Your task to perform on an android device: change keyboard looks Image 0: 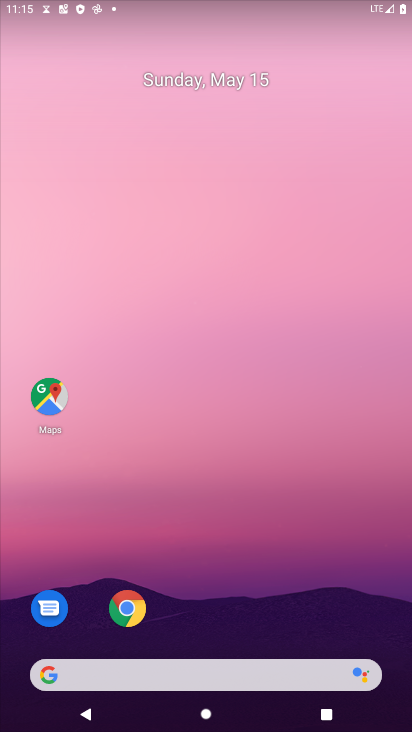
Step 0: drag from (324, 569) to (314, 175)
Your task to perform on an android device: change keyboard looks Image 1: 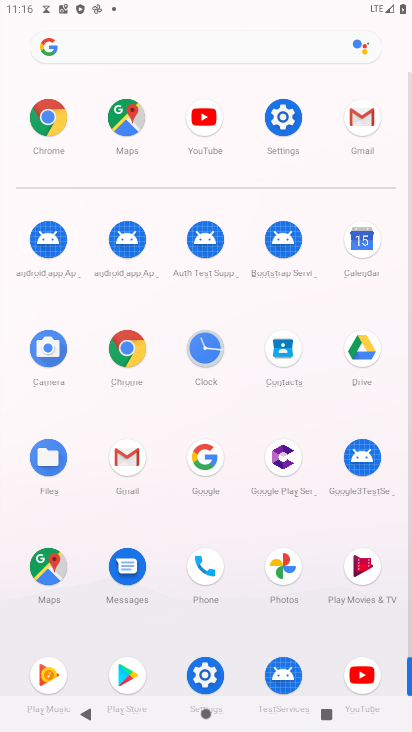
Step 1: click (297, 126)
Your task to perform on an android device: change keyboard looks Image 2: 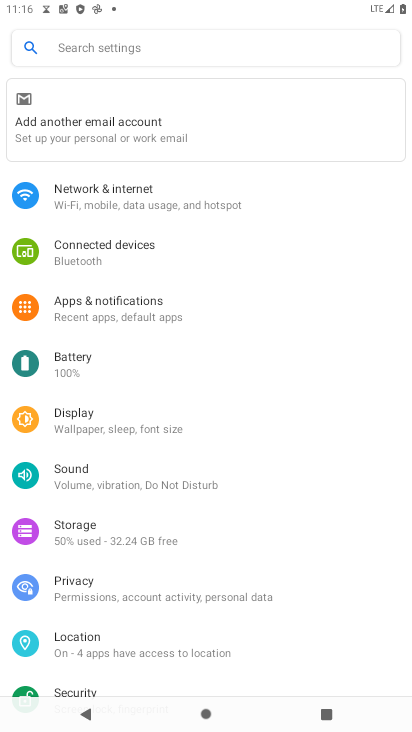
Step 2: drag from (214, 644) to (160, 213)
Your task to perform on an android device: change keyboard looks Image 3: 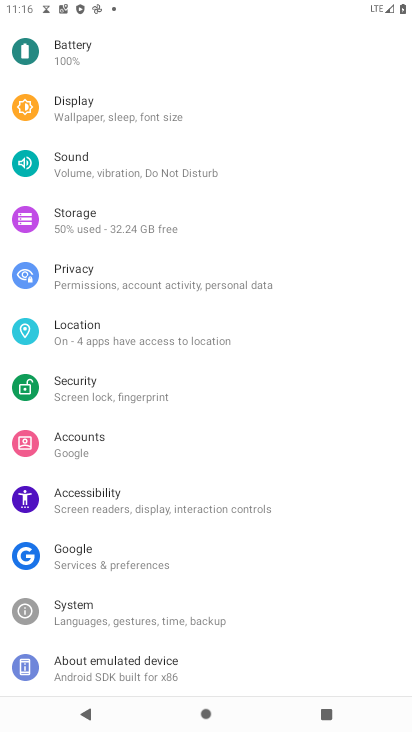
Step 3: drag from (152, 543) to (214, 238)
Your task to perform on an android device: change keyboard looks Image 4: 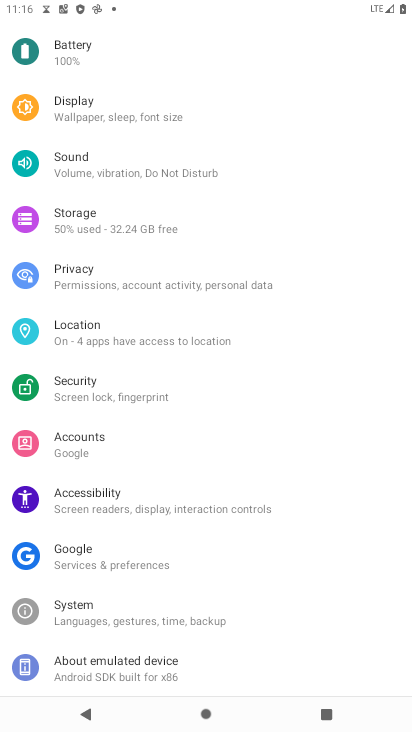
Step 4: drag from (196, 609) to (216, 348)
Your task to perform on an android device: change keyboard looks Image 5: 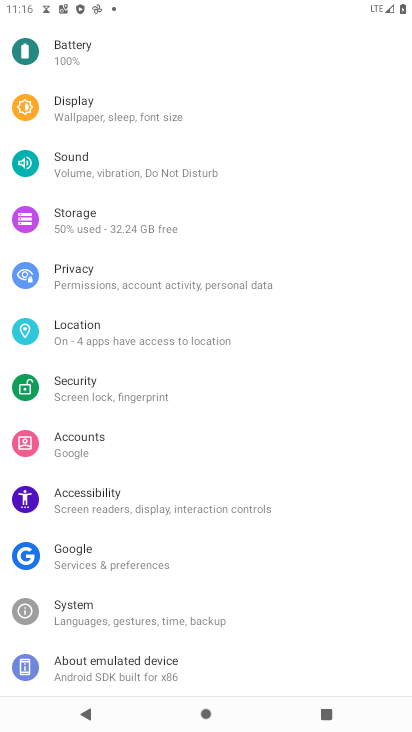
Step 5: click (114, 672)
Your task to perform on an android device: change keyboard looks Image 6: 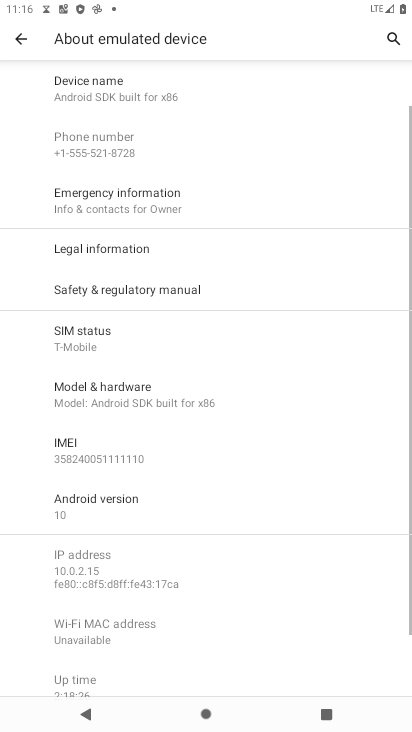
Step 6: drag from (313, 596) to (274, 251)
Your task to perform on an android device: change keyboard looks Image 7: 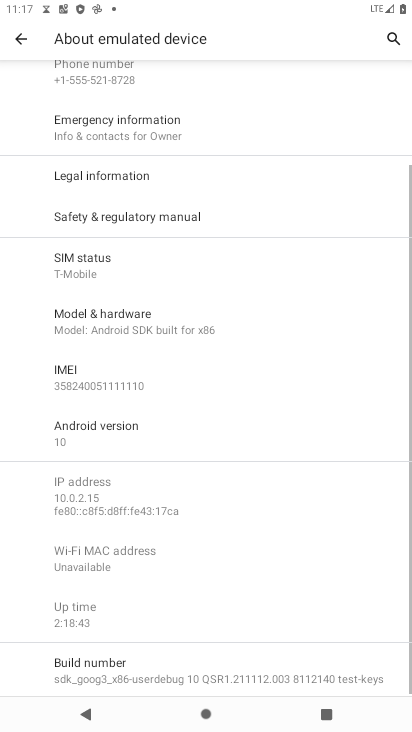
Step 7: drag from (260, 198) to (190, 692)
Your task to perform on an android device: change keyboard looks Image 8: 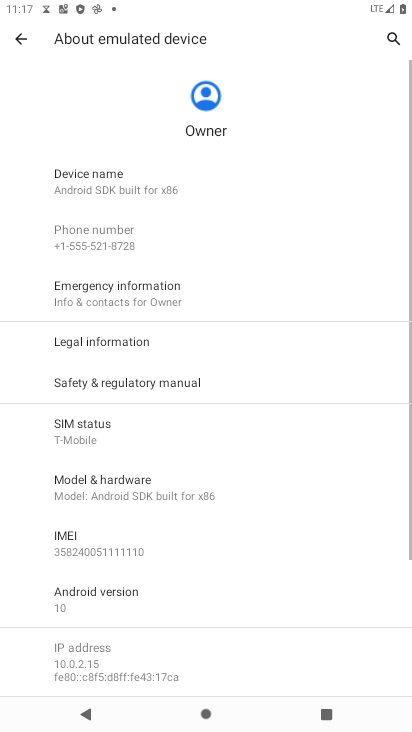
Step 8: drag from (255, 319) to (192, 712)
Your task to perform on an android device: change keyboard looks Image 9: 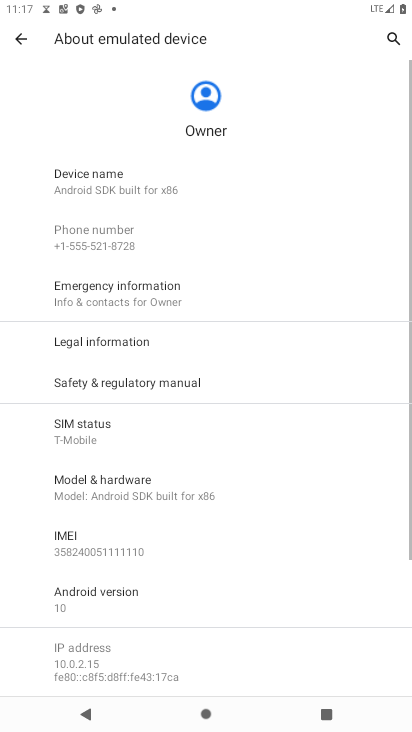
Step 9: click (33, 31)
Your task to perform on an android device: change keyboard looks Image 10: 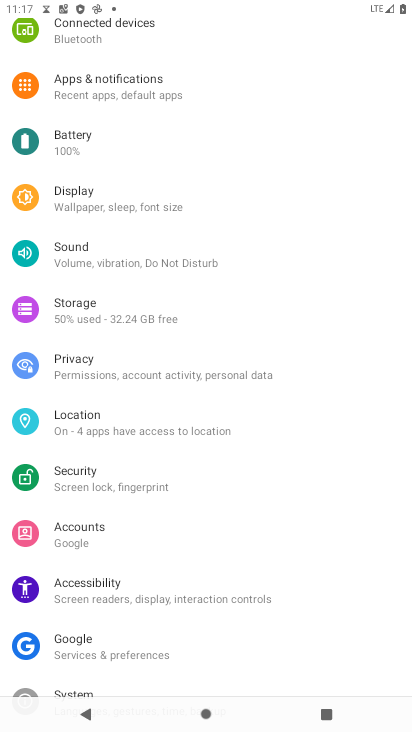
Step 10: drag from (192, 631) to (231, 165)
Your task to perform on an android device: change keyboard looks Image 11: 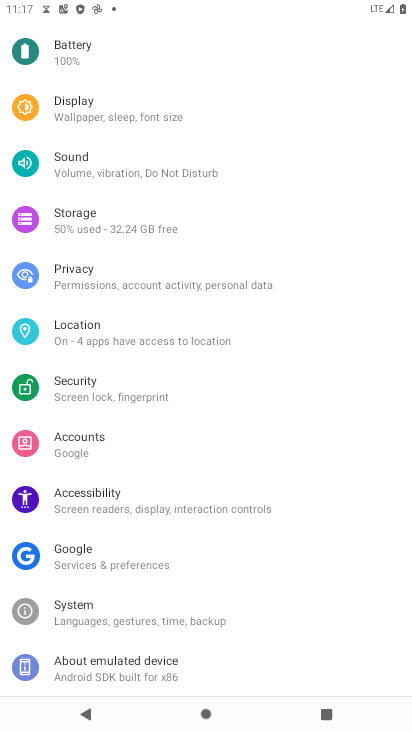
Step 11: click (115, 613)
Your task to perform on an android device: change keyboard looks Image 12: 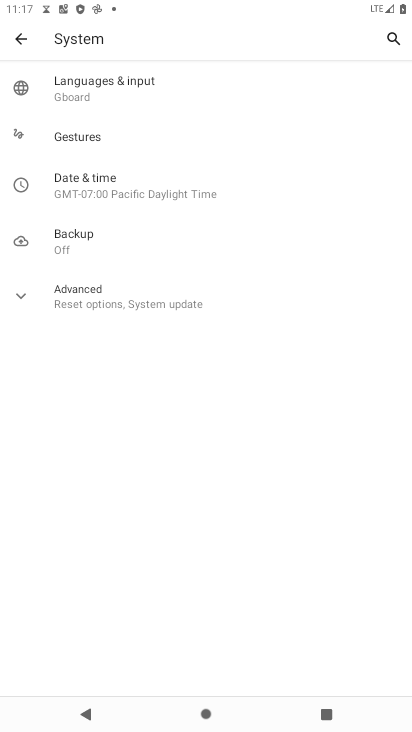
Step 12: click (82, 94)
Your task to perform on an android device: change keyboard looks Image 13: 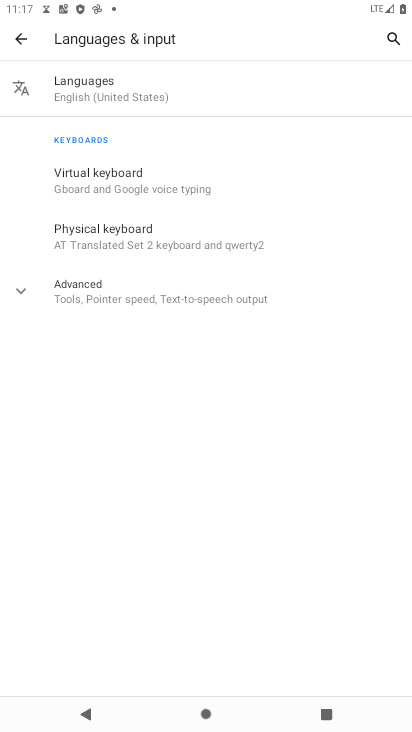
Step 13: click (56, 183)
Your task to perform on an android device: change keyboard looks Image 14: 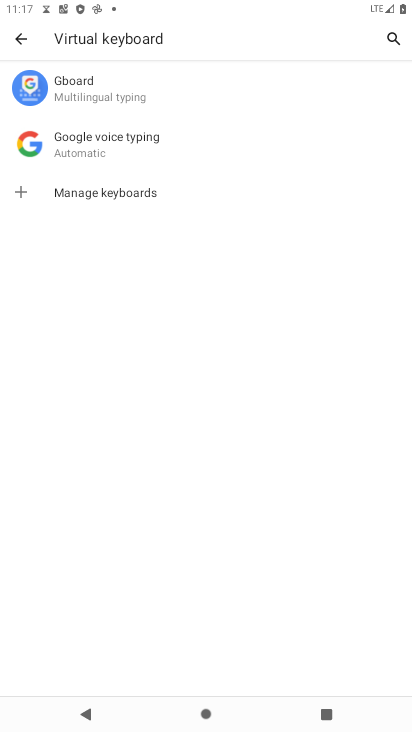
Step 14: click (65, 84)
Your task to perform on an android device: change keyboard looks Image 15: 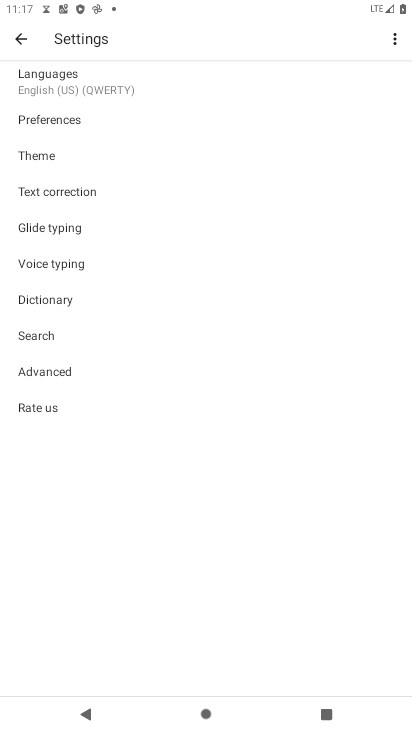
Step 15: click (41, 160)
Your task to perform on an android device: change keyboard looks Image 16: 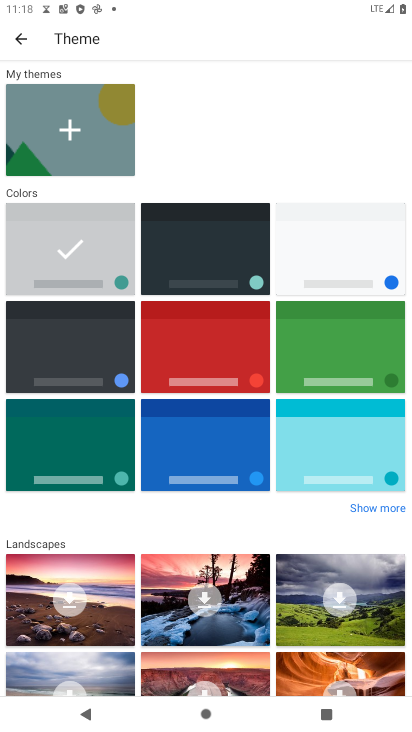
Step 16: click (195, 251)
Your task to perform on an android device: change keyboard looks Image 17: 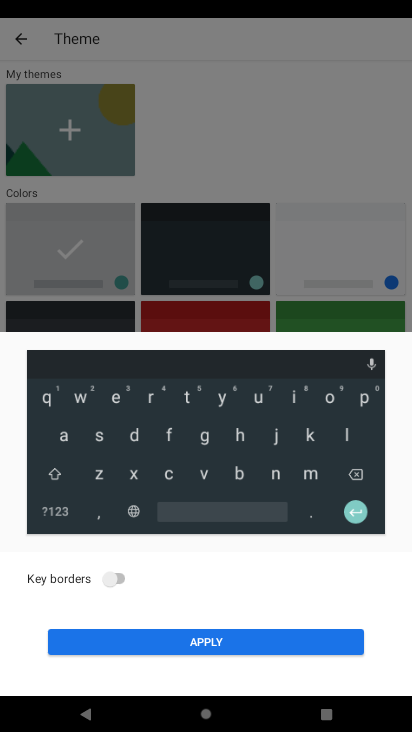
Step 17: click (202, 645)
Your task to perform on an android device: change keyboard looks Image 18: 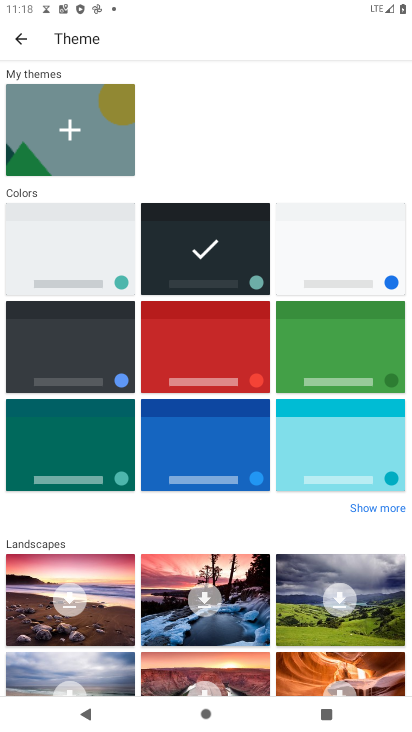
Step 18: task complete